Your task to perform on an android device: Open calendar and show me the fourth week of next month Image 0: 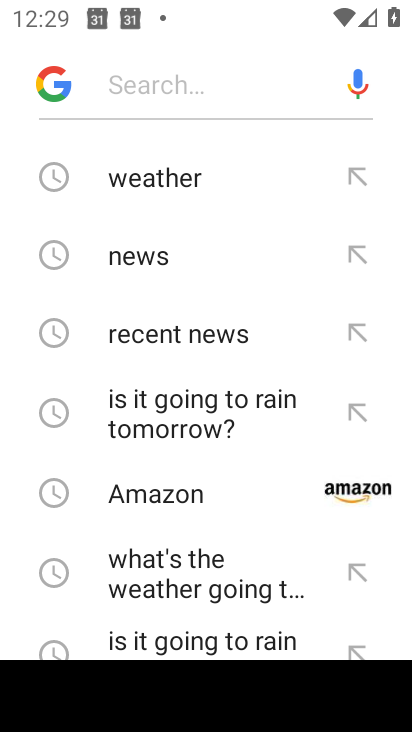
Step 0: press home button
Your task to perform on an android device: Open calendar and show me the fourth week of next month Image 1: 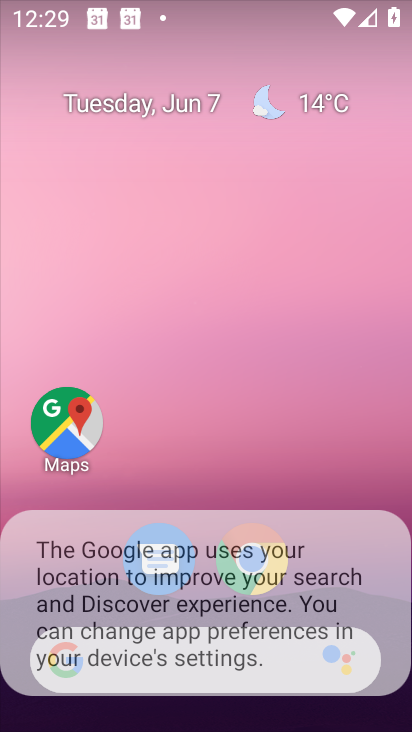
Step 1: drag from (199, 473) to (342, 55)
Your task to perform on an android device: Open calendar and show me the fourth week of next month Image 2: 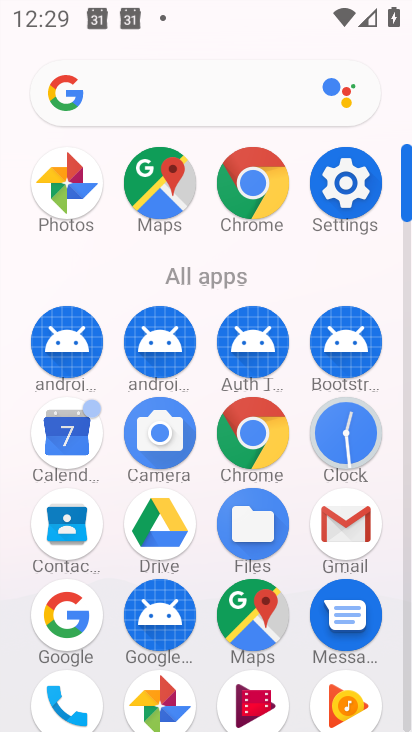
Step 2: click (66, 446)
Your task to perform on an android device: Open calendar and show me the fourth week of next month Image 3: 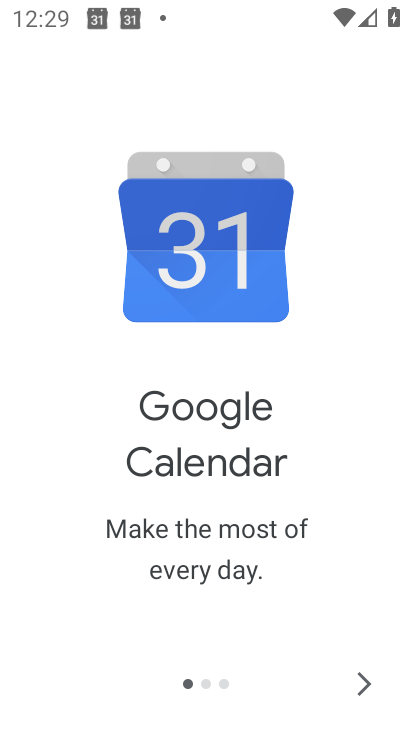
Step 3: click (358, 692)
Your task to perform on an android device: Open calendar and show me the fourth week of next month Image 4: 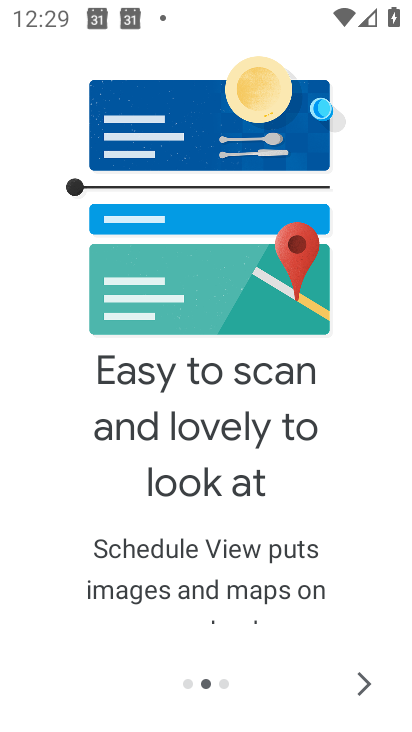
Step 4: click (363, 687)
Your task to perform on an android device: Open calendar and show me the fourth week of next month Image 5: 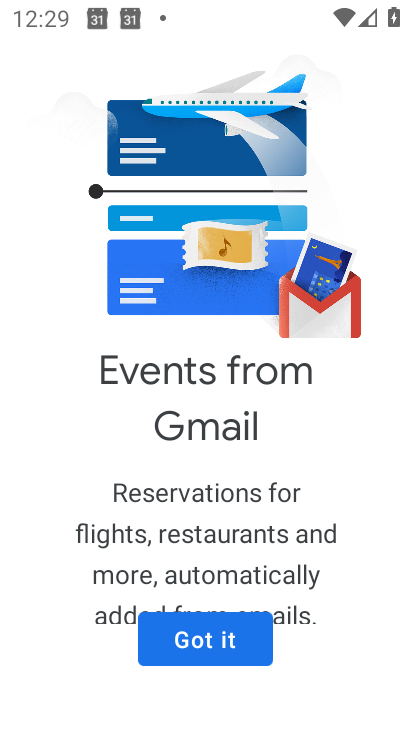
Step 5: click (175, 642)
Your task to perform on an android device: Open calendar and show me the fourth week of next month Image 6: 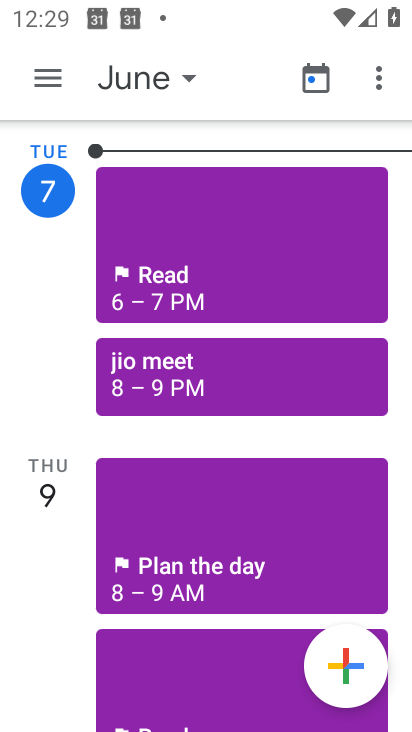
Step 6: click (54, 82)
Your task to perform on an android device: Open calendar and show me the fourth week of next month Image 7: 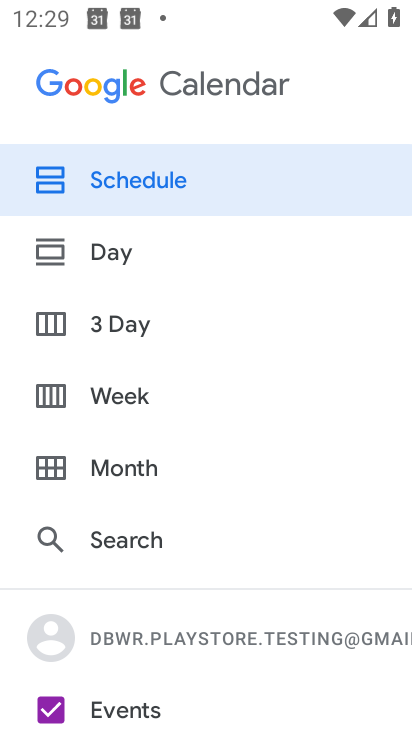
Step 7: click (150, 392)
Your task to perform on an android device: Open calendar and show me the fourth week of next month Image 8: 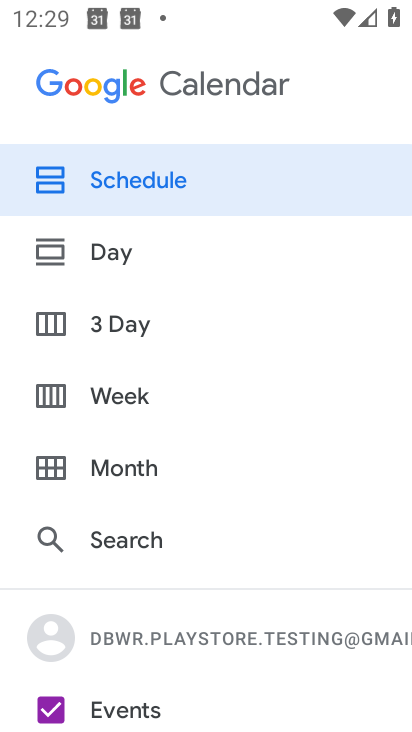
Step 8: click (164, 395)
Your task to perform on an android device: Open calendar and show me the fourth week of next month Image 9: 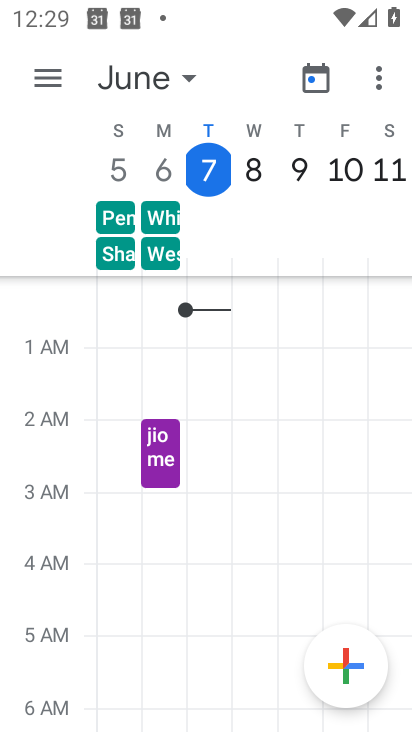
Step 9: click (123, 69)
Your task to perform on an android device: Open calendar and show me the fourth week of next month Image 10: 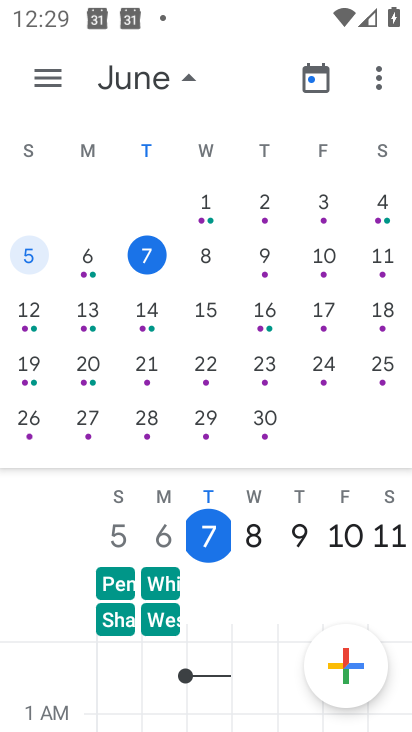
Step 10: drag from (365, 414) to (0, 453)
Your task to perform on an android device: Open calendar and show me the fourth week of next month Image 11: 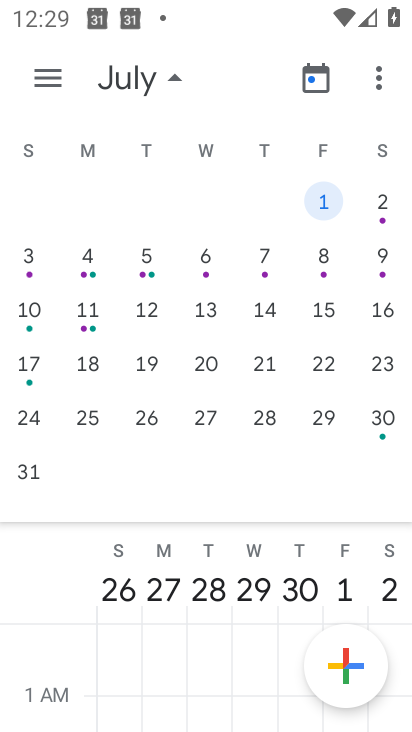
Step 11: click (22, 419)
Your task to perform on an android device: Open calendar and show me the fourth week of next month Image 12: 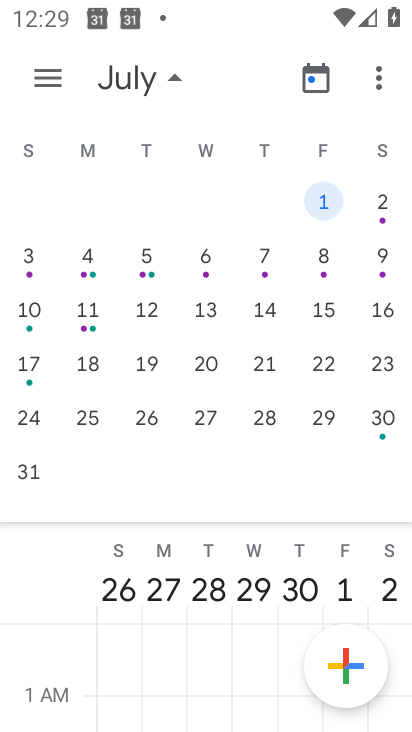
Step 12: click (30, 423)
Your task to perform on an android device: Open calendar and show me the fourth week of next month Image 13: 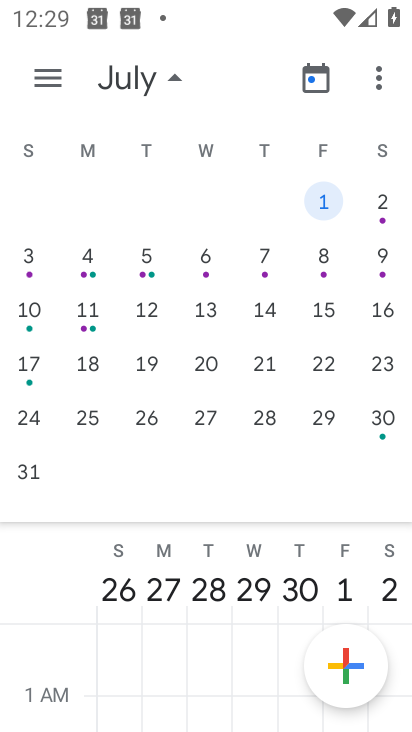
Step 13: click (31, 423)
Your task to perform on an android device: Open calendar and show me the fourth week of next month Image 14: 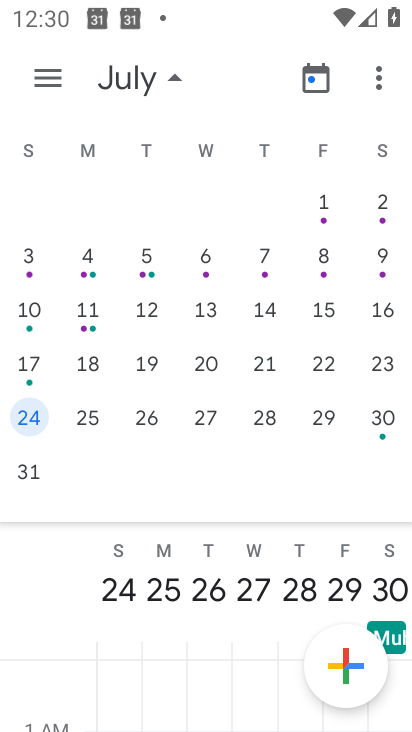
Step 14: click (44, 423)
Your task to perform on an android device: Open calendar and show me the fourth week of next month Image 15: 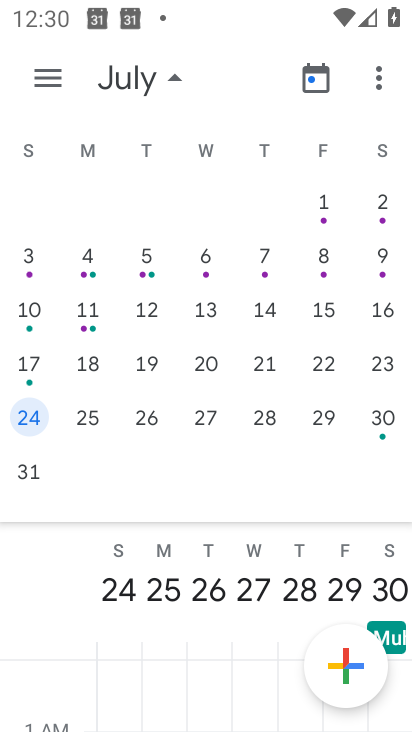
Step 15: click (163, 70)
Your task to perform on an android device: Open calendar and show me the fourth week of next month Image 16: 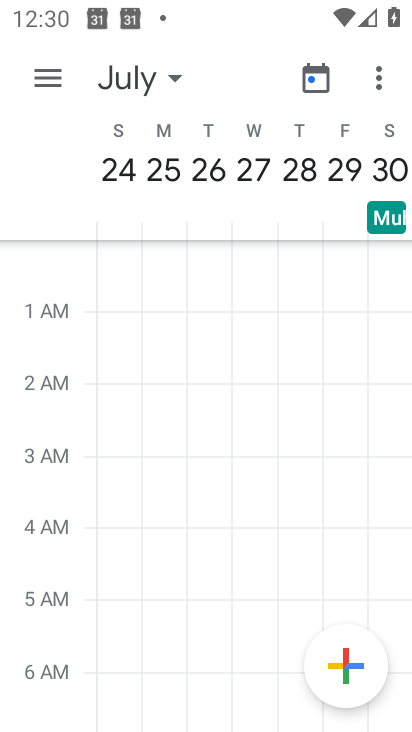
Step 16: task complete